Your task to perform on an android device: Go to network settings Image 0: 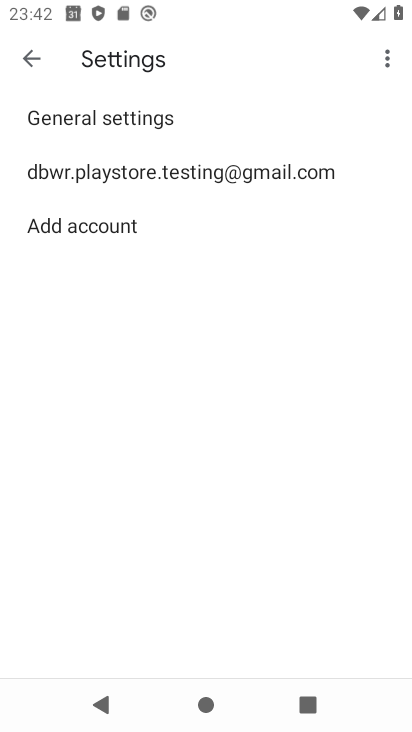
Step 0: press home button
Your task to perform on an android device: Go to network settings Image 1: 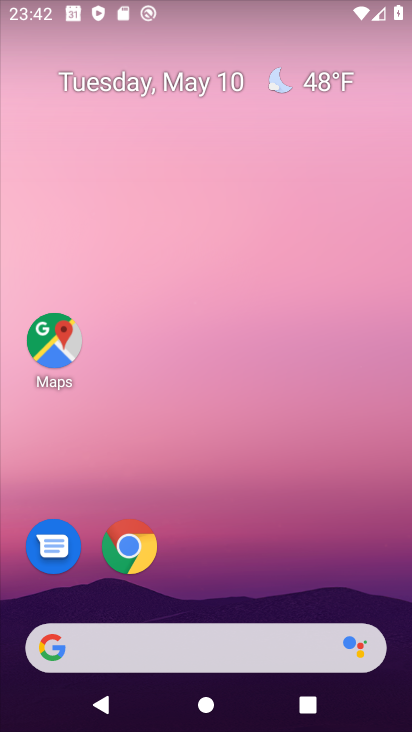
Step 1: drag from (234, 583) to (212, 245)
Your task to perform on an android device: Go to network settings Image 2: 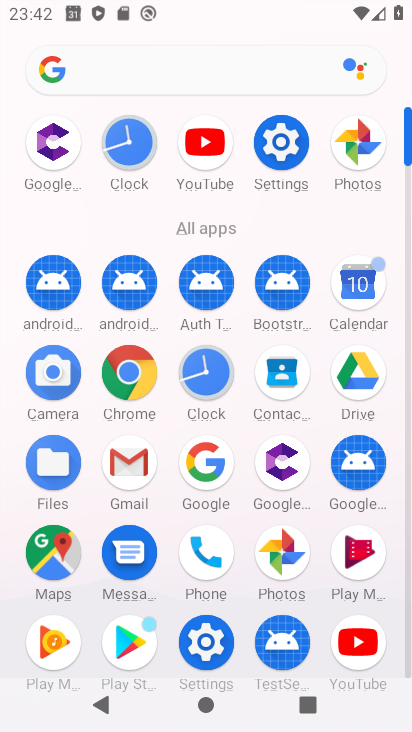
Step 2: click (268, 143)
Your task to perform on an android device: Go to network settings Image 3: 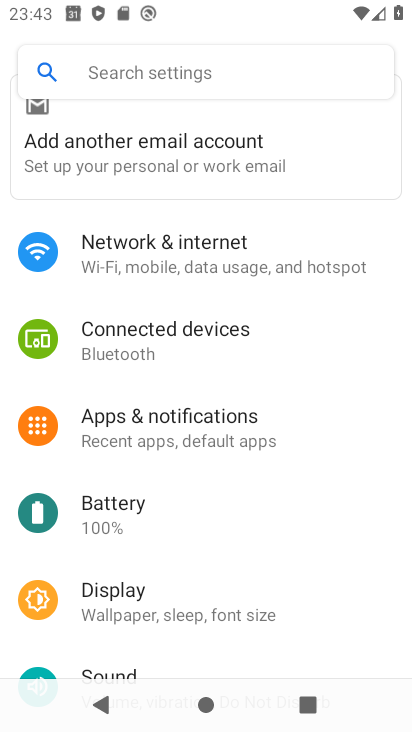
Step 3: click (127, 268)
Your task to perform on an android device: Go to network settings Image 4: 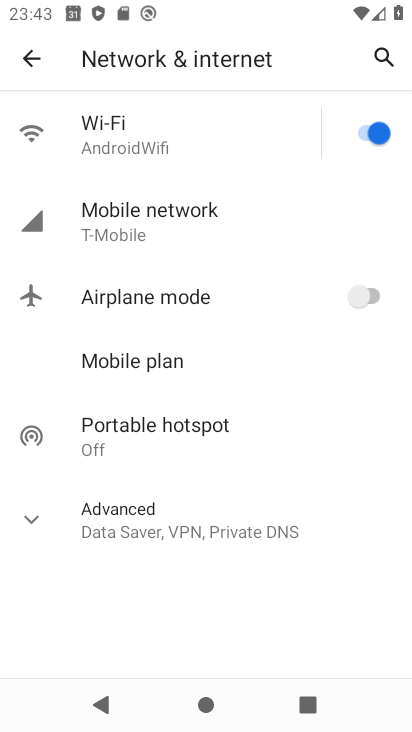
Step 4: click (150, 207)
Your task to perform on an android device: Go to network settings Image 5: 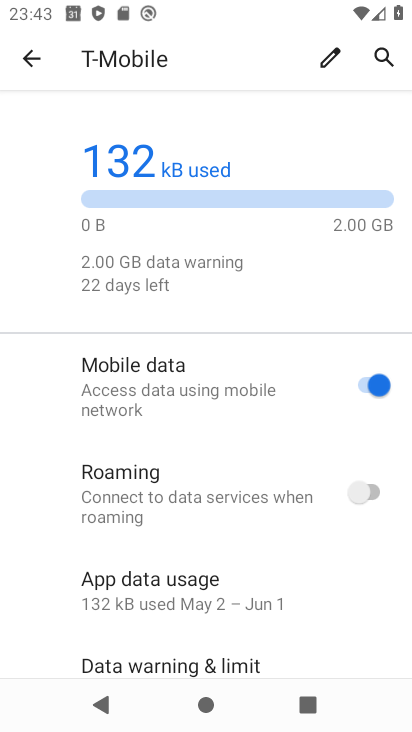
Step 5: task complete